Your task to perform on an android device: Go to privacy settings Image 0: 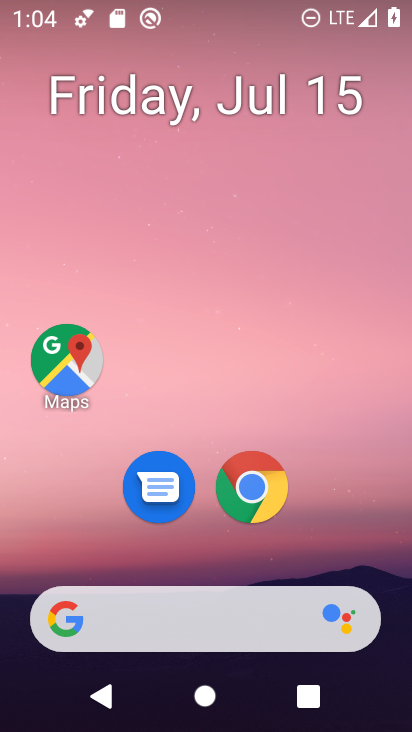
Step 0: press home button
Your task to perform on an android device: Go to privacy settings Image 1: 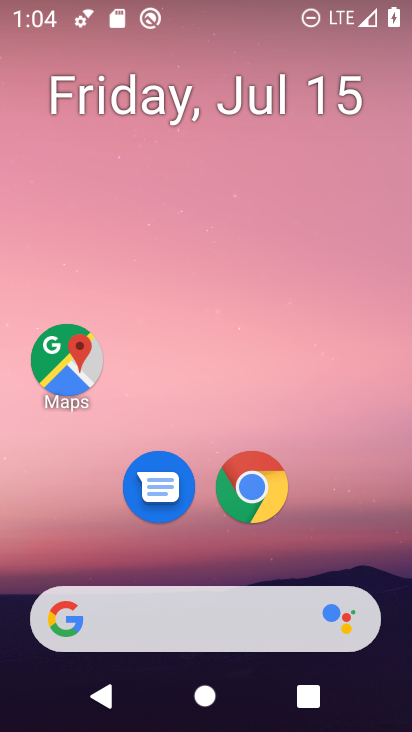
Step 1: drag from (274, 565) to (297, 141)
Your task to perform on an android device: Go to privacy settings Image 2: 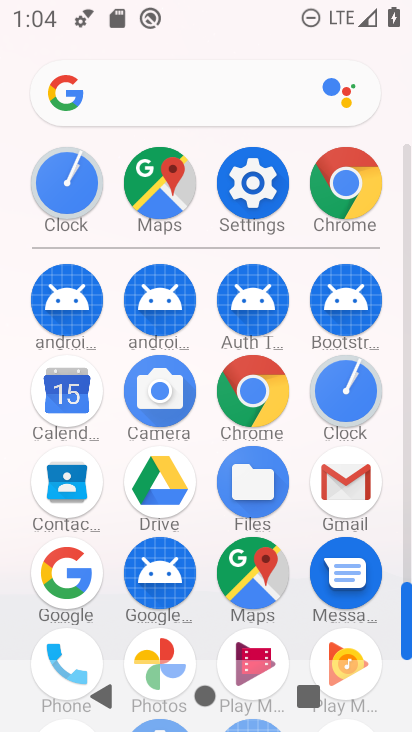
Step 2: click (264, 197)
Your task to perform on an android device: Go to privacy settings Image 3: 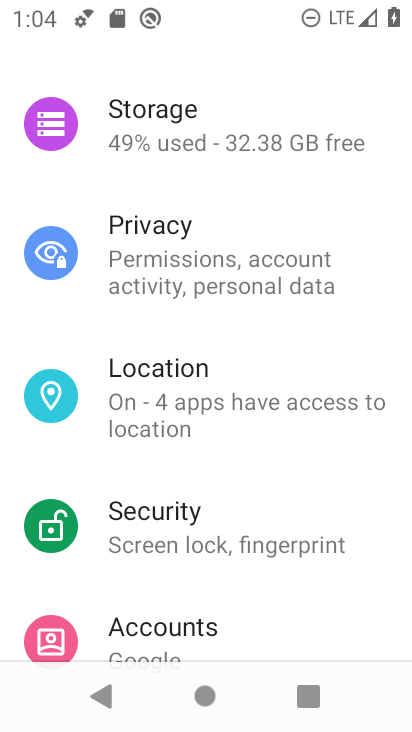
Step 3: drag from (219, 214) to (220, 394)
Your task to perform on an android device: Go to privacy settings Image 4: 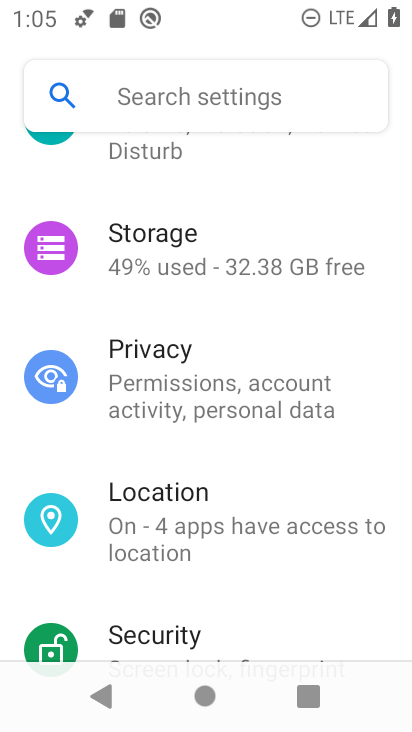
Step 4: click (217, 387)
Your task to perform on an android device: Go to privacy settings Image 5: 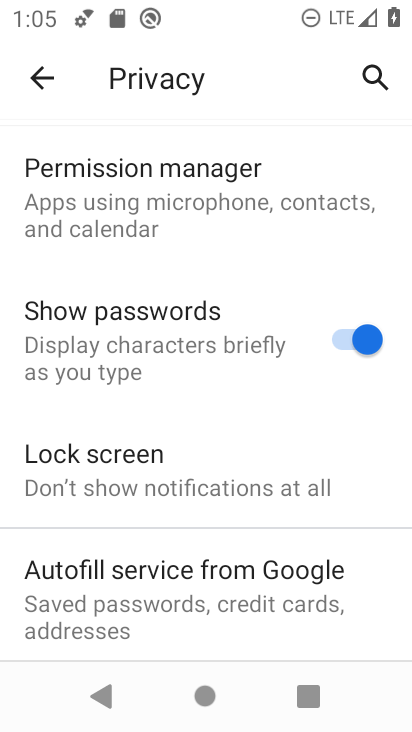
Step 5: task complete